Your task to perform on an android device: set an alarm Image 0: 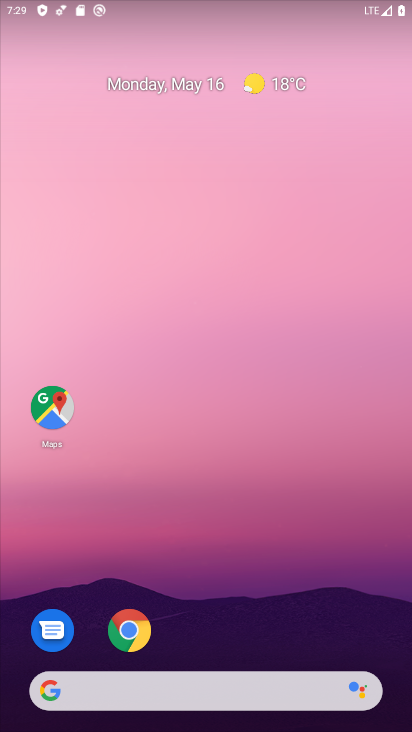
Step 0: drag from (249, 601) to (254, 169)
Your task to perform on an android device: set an alarm Image 1: 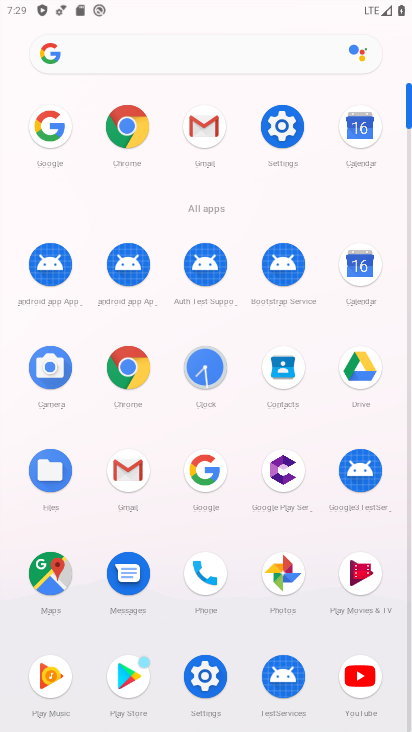
Step 1: click (206, 367)
Your task to perform on an android device: set an alarm Image 2: 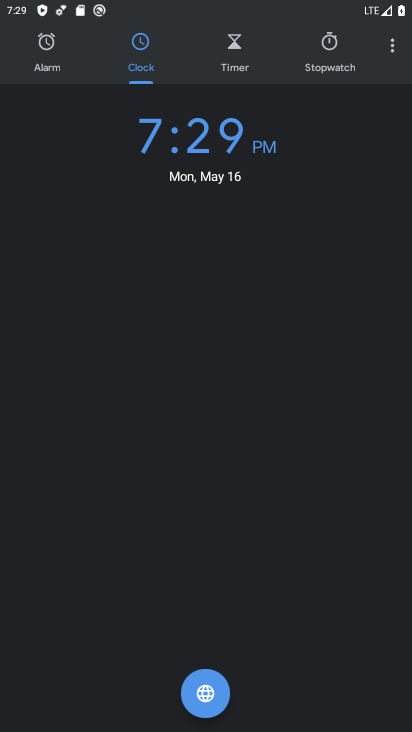
Step 2: click (32, 43)
Your task to perform on an android device: set an alarm Image 3: 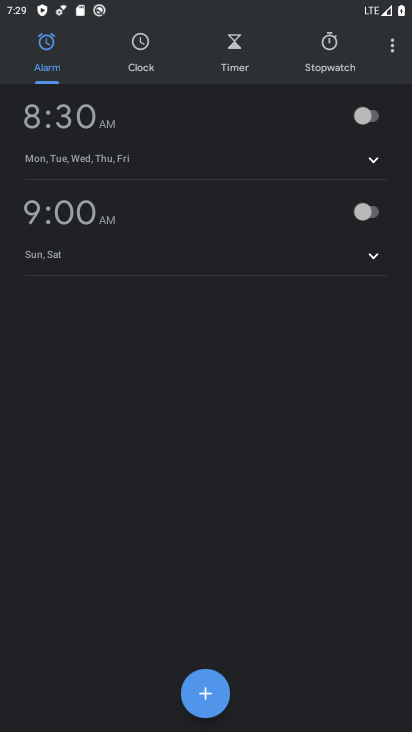
Step 3: click (205, 693)
Your task to perform on an android device: set an alarm Image 4: 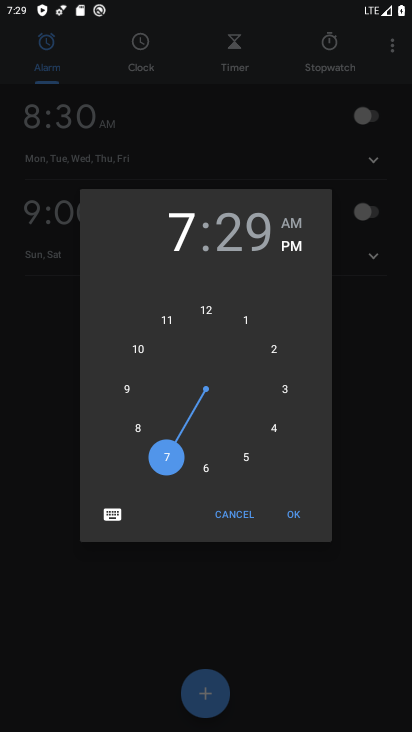
Step 4: click (212, 311)
Your task to perform on an android device: set an alarm Image 5: 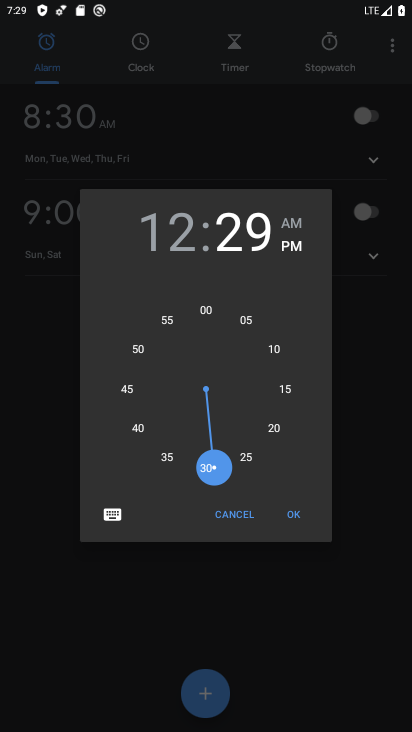
Step 5: click (269, 344)
Your task to perform on an android device: set an alarm Image 6: 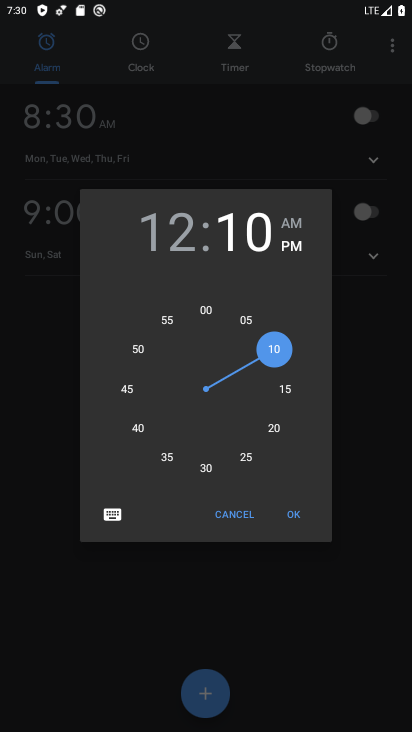
Step 6: click (300, 226)
Your task to perform on an android device: set an alarm Image 7: 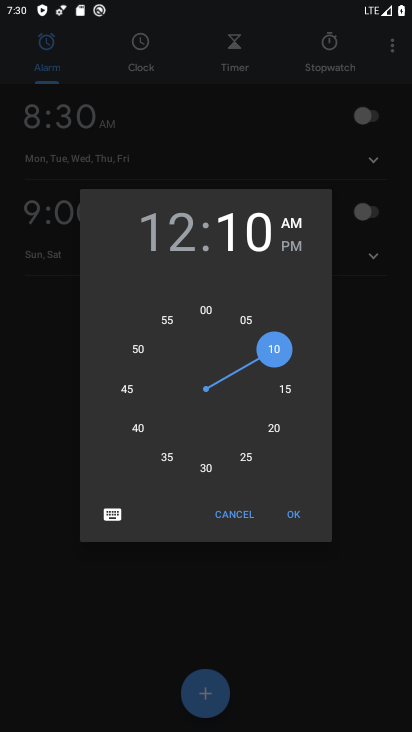
Step 7: click (292, 508)
Your task to perform on an android device: set an alarm Image 8: 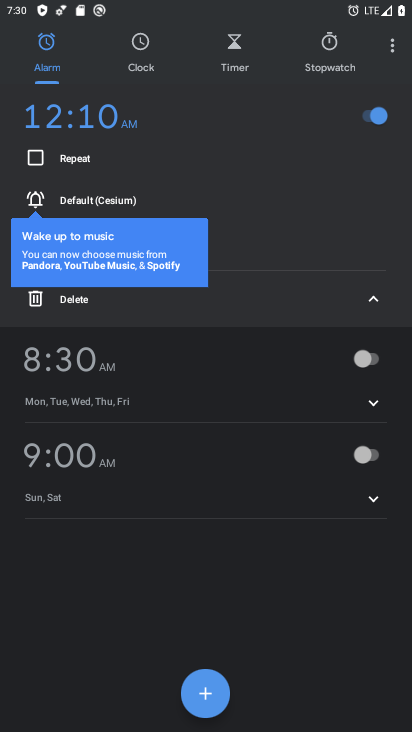
Step 8: click (368, 292)
Your task to perform on an android device: set an alarm Image 9: 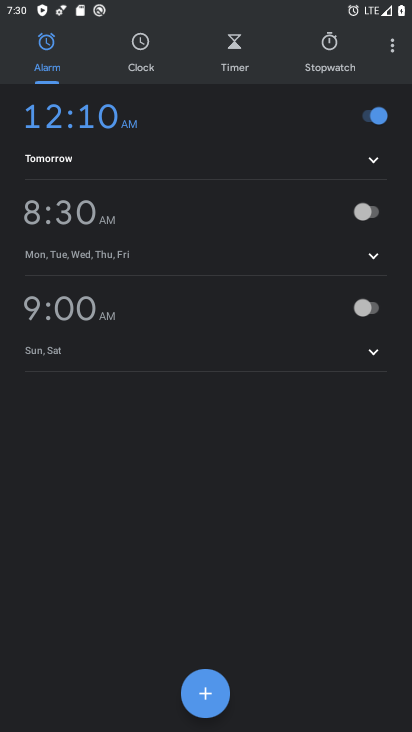
Step 9: task complete